Your task to perform on an android device: Open Reddit.com Image 0: 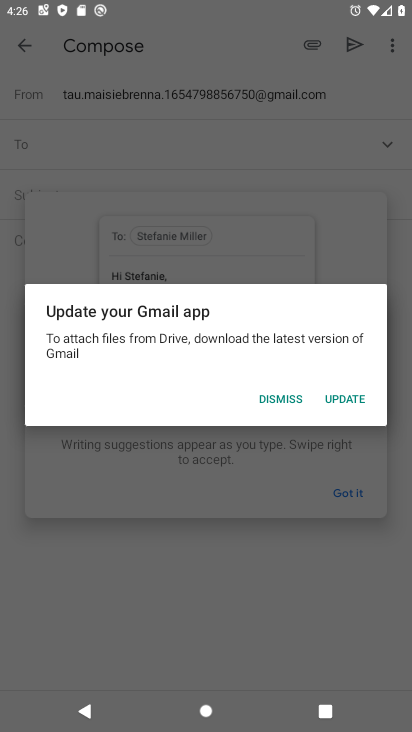
Step 0: press home button
Your task to perform on an android device: Open Reddit.com Image 1: 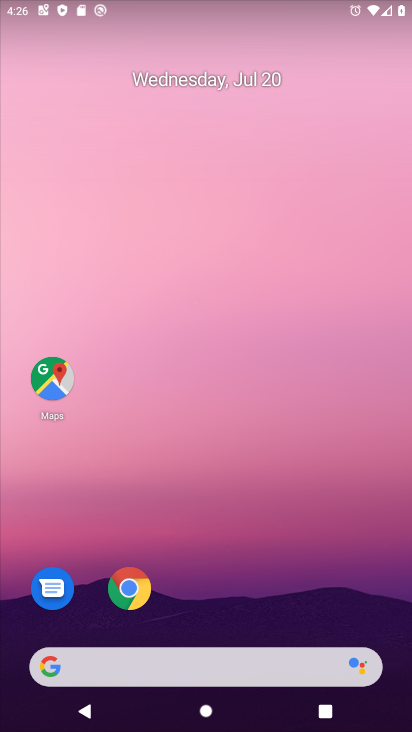
Step 1: drag from (285, 596) to (281, 65)
Your task to perform on an android device: Open Reddit.com Image 2: 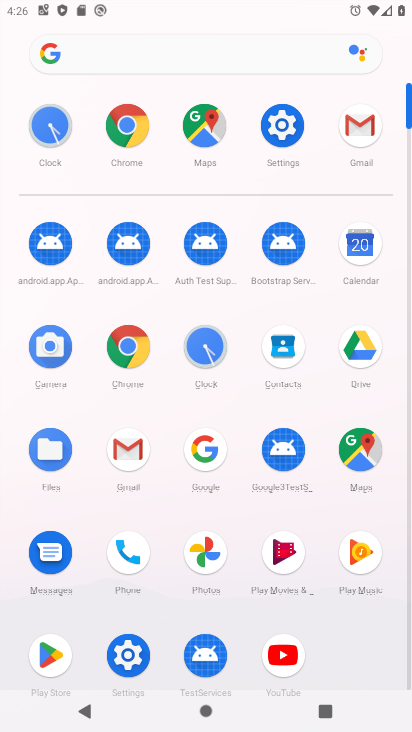
Step 2: click (127, 349)
Your task to perform on an android device: Open Reddit.com Image 3: 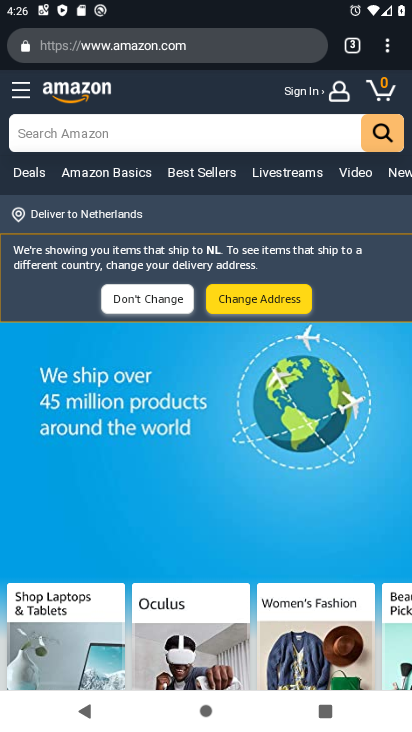
Step 3: click (183, 42)
Your task to perform on an android device: Open Reddit.com Image 4: 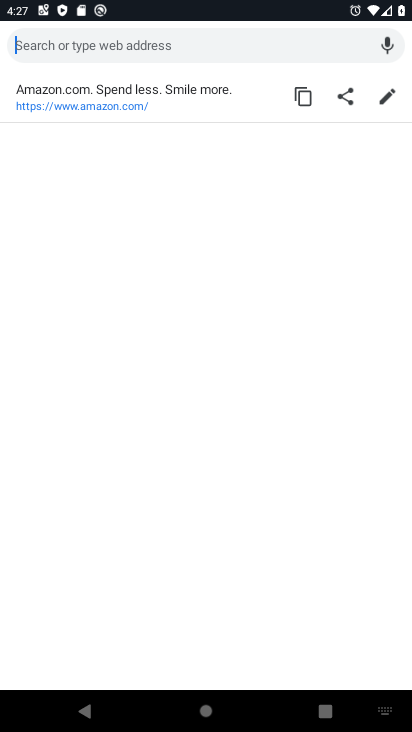
Step 4: type "reddit.com"
Your task to perform on an android device: Open Reddit.com Image 5: 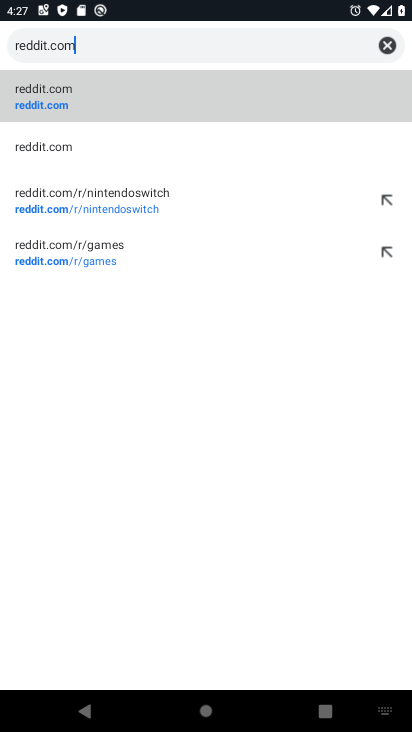
Step 5: click (99, 94)
Your task to perform on an android device: Open Reddit.com Image 6: 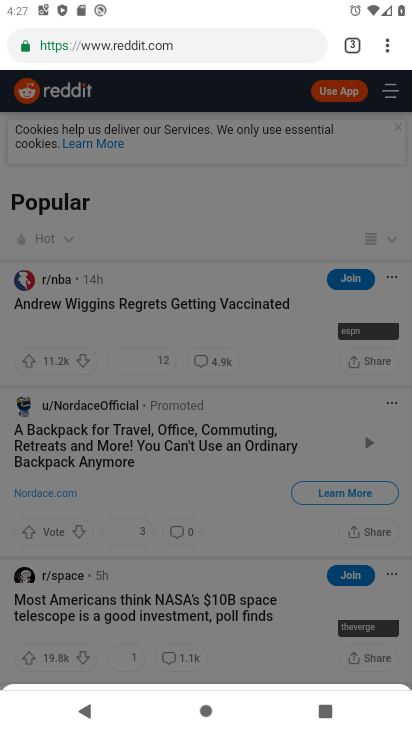
Step 6: task complete